Your task to perform on an android device: turn on wifi Image 0: 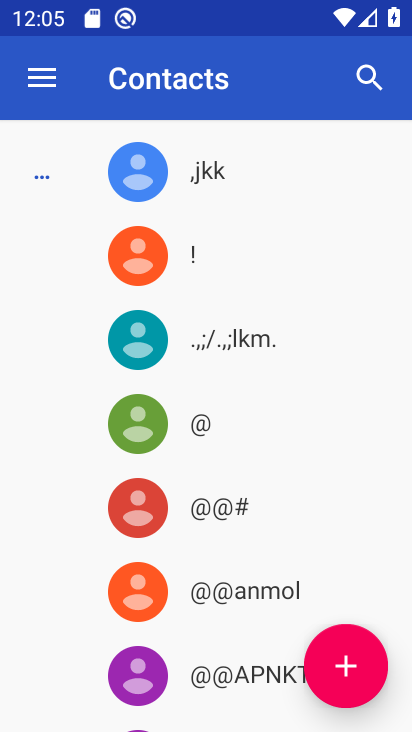
Step 0: press home button
Your task to perform on an android device: turn on wifi Image 1: 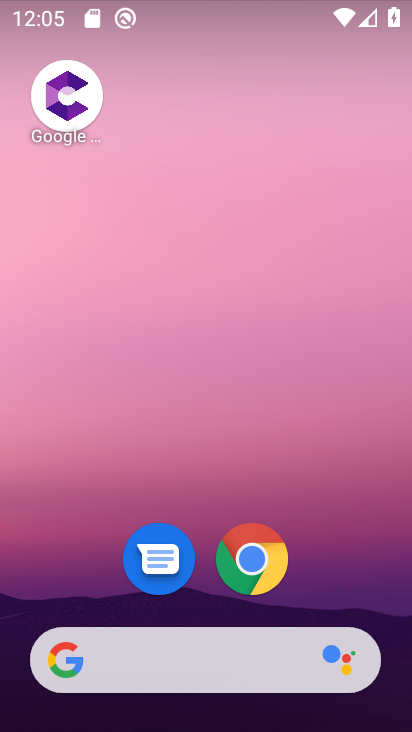
Step 1: drag from (333, 573) to (310, 255)
Your task to perform on an android device: turn on wifi Image 2: 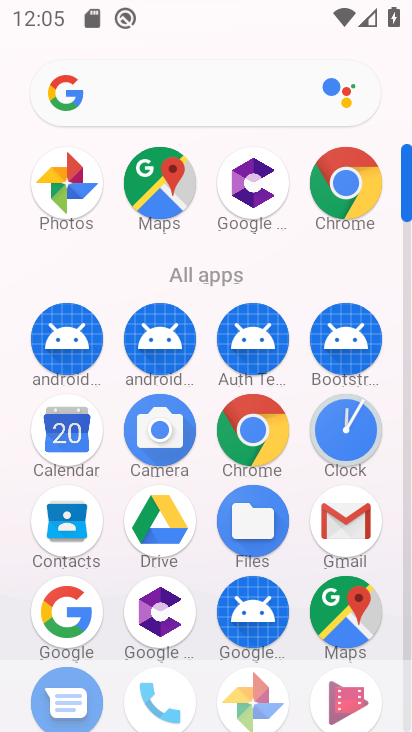
Step 2: click (407, 614)
Your task to perform on an android device: turn on wifi Image 3: 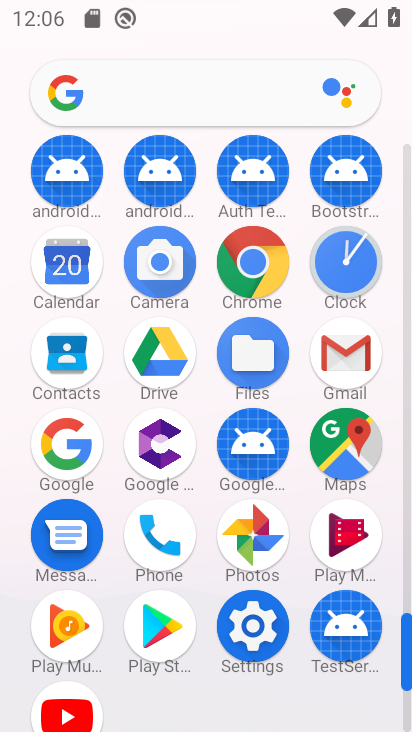
Step 3: click (272, 611)
Your task to perform on an android device: turn on wifi Image 4: 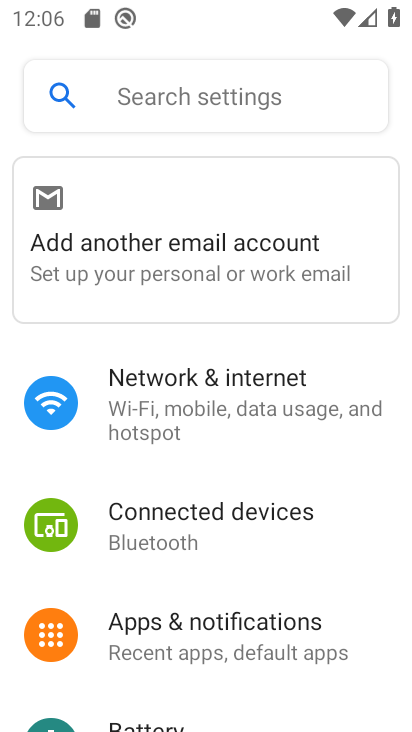
Step 4: click (287, 382)
Your task to perform on an android device: turn on wifi Image 5: 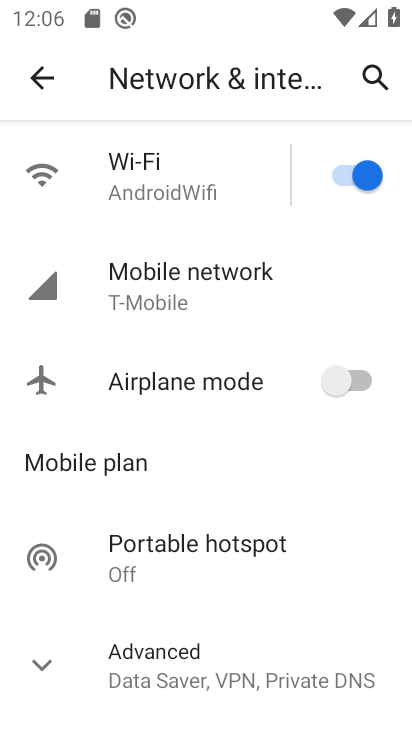
Step 5: task complete